Your task to perform on an android device: uninstall "DoorDash - Dasher" Image 0: 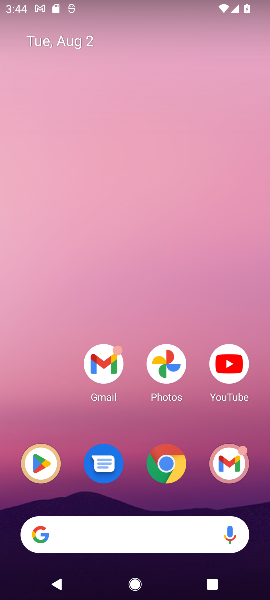
Step 0: click (46, 460)
Your task to perform on an android device: uninstall "DoorDash - Dasher" Image 1: 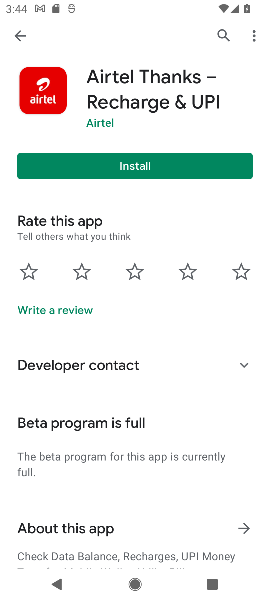
Step 1: click (221, 35)
Your task to perform on an android device: uninstall "DoorDash - Dasher" Image 2: 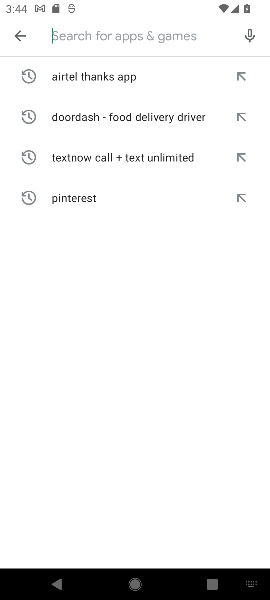
Step 2: type "DoorDash - Dasher"
Your task to perform on an android device: uninstall "DoorDash - Dasher" Image 3: 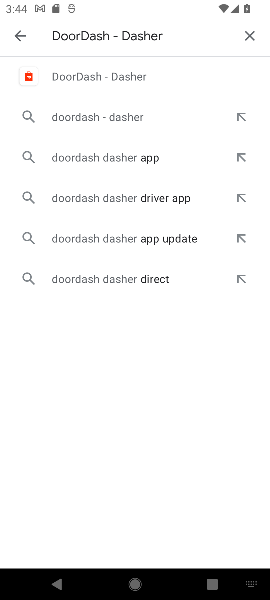
Step 3: click (131, 77)
Your task to perform on an android device: uninstall "DoorDash - Dasher" Image 4: 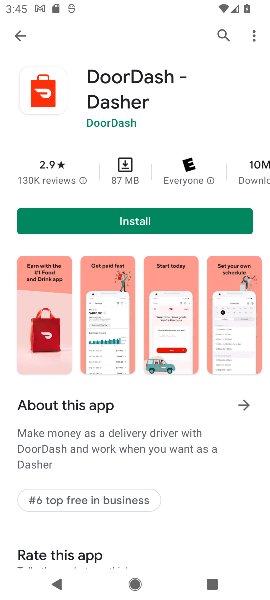
Step 4: task complete